Your task to perform on an android device: check the backup settings in the google photos Image 0: 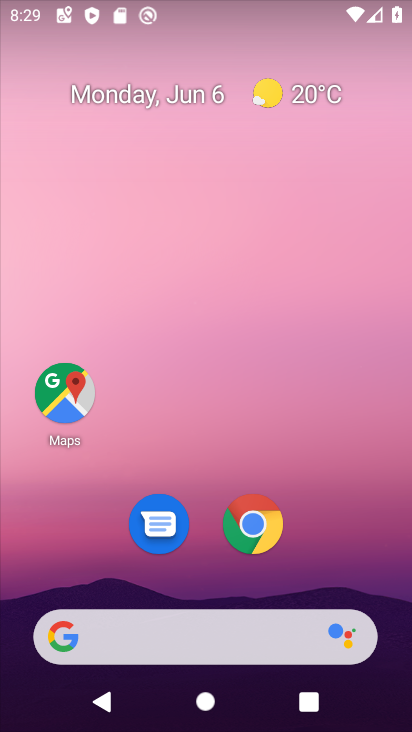
Step 0: drag from (224, 443) to (226, 8)
Your task to perform on an android device: check the backup settings in the google photos Image 1: 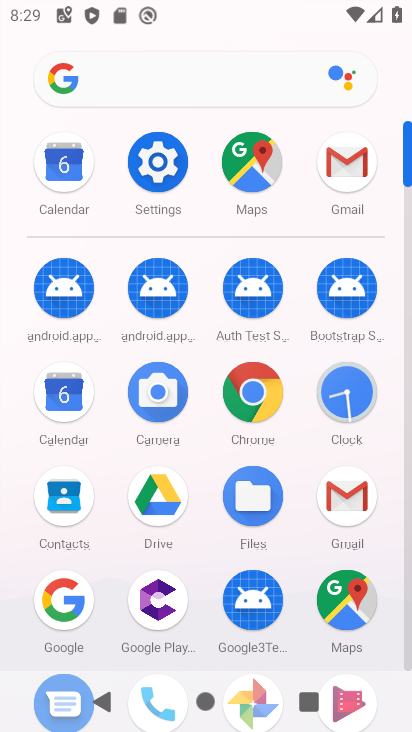
Step 1: drag from (300, 552) to (292, 324)
Your task to perform on an android device: check the backup settings in the google photos Image 2: 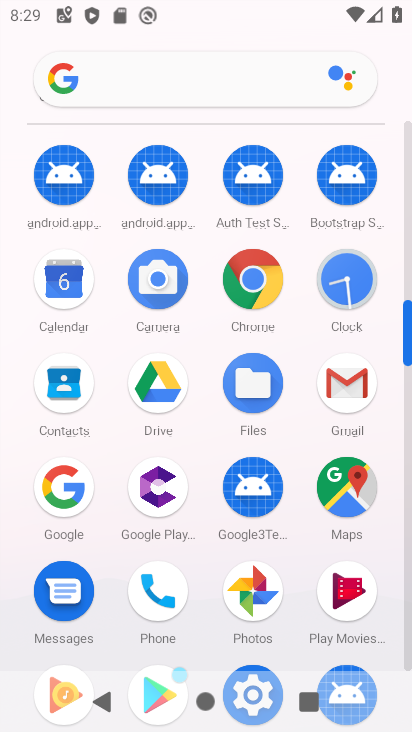
Step 2: click (250, 575)
Your task to perform on an android device: check the backup settings in the google photos Image 3: 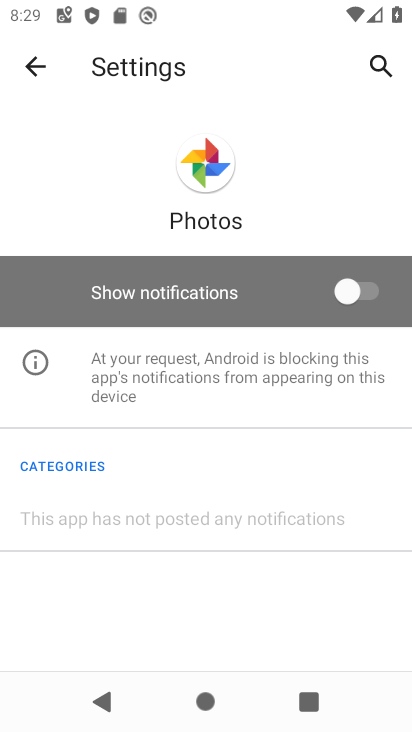
Step 3: click (45, 65)
Your task to perform on an android device: check the backup settings in the google photos Image 4: 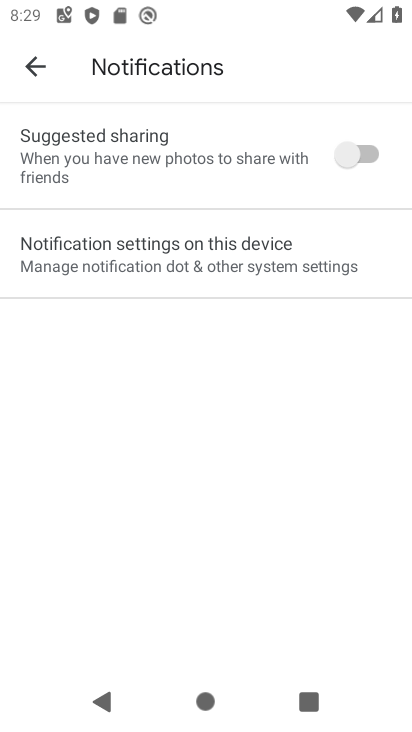
Step 4: click (35, 65)
Your task to perform on an android device: check the backup settings in the google photos Image 5: 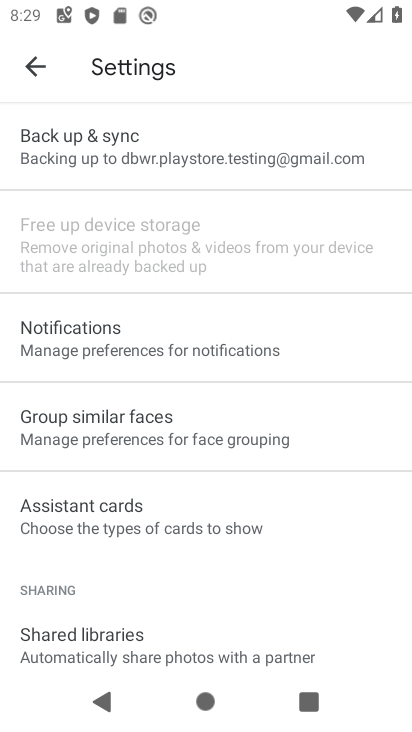
Step 5: click (60, 147)
Your task to perform on an android device: check the backup settings in the google photos Image 6: 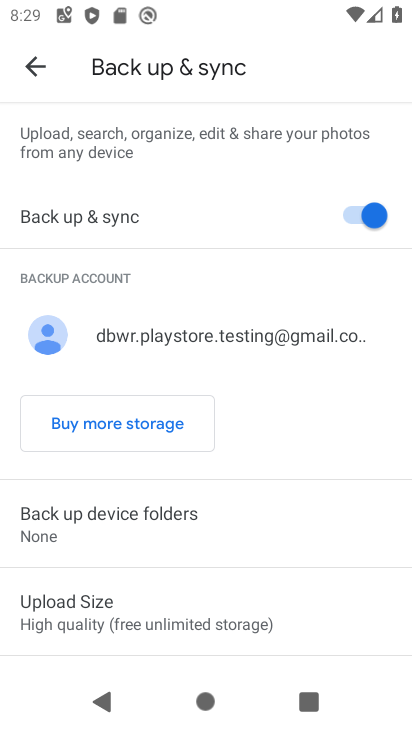
Step 6: task complete